Your task to perform on an android device: Check the news Image 0: 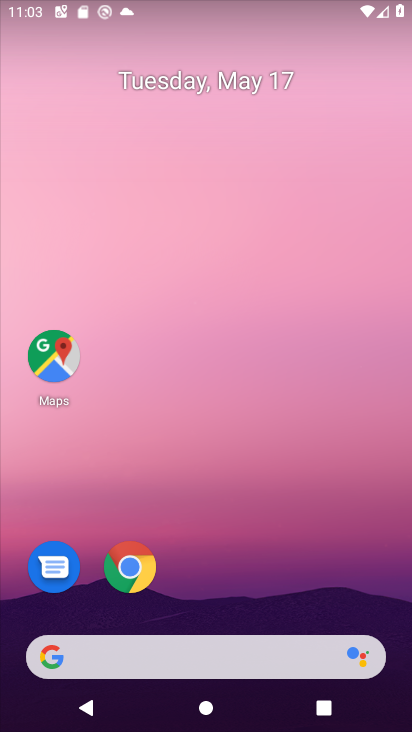
Step 0: click (168, 656)
Your task to perform on an android device: Check the news Image 1: 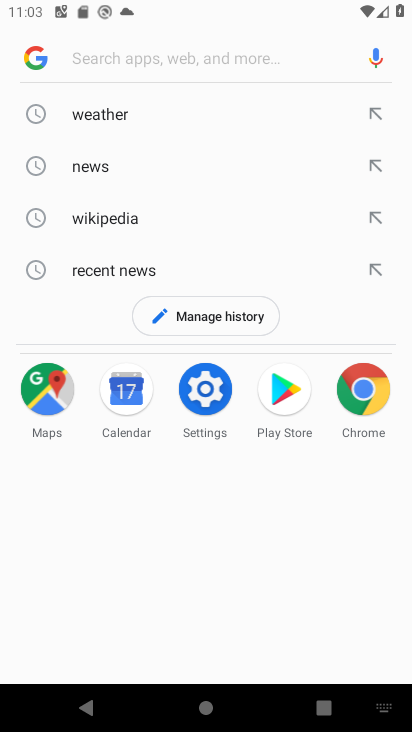
Step 1: click (91, 163)
Your task to perform on an android device: Check the news Image 2: 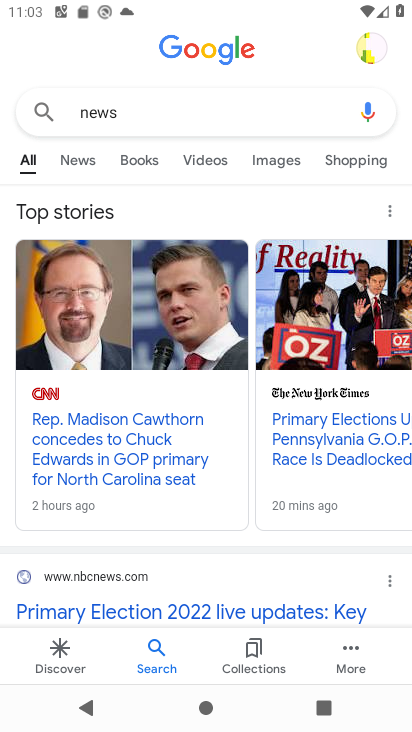
Step 2: task complete